Your task to perform on an android device: turn on showing notifications on the lock screen Image 0: 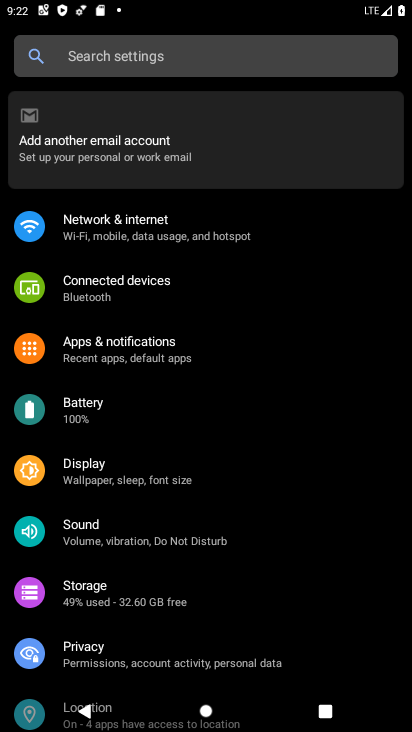
Step 0: click (124, 353)
Your task to perform on an android device: turn on showing notifications on the lock screen Image 1: 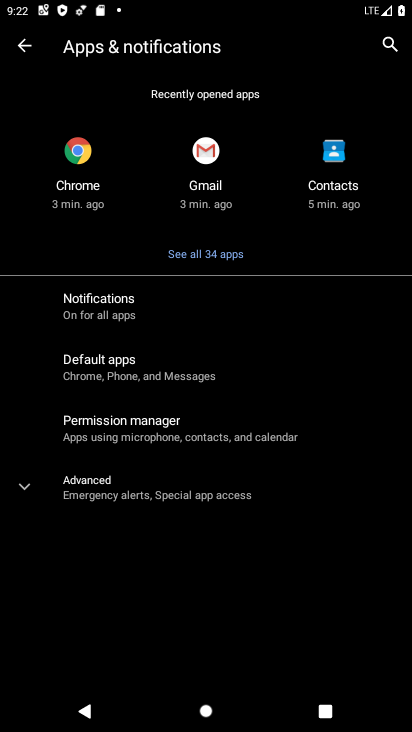
Step 1: click (100, 310)
Your task to perform on an android device: turn on showing notifications on the lock screen Image 2: 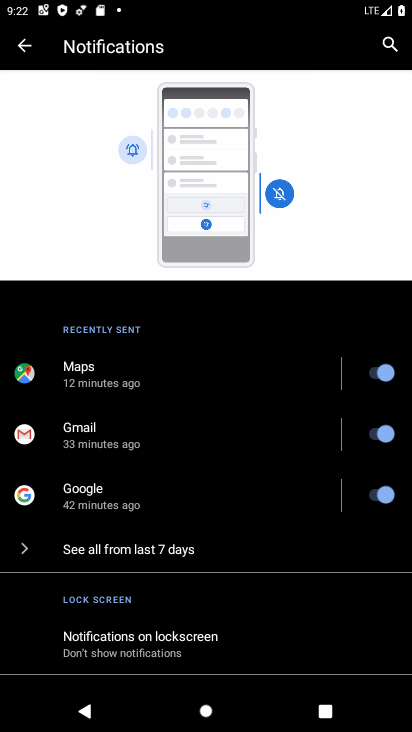
Step 2: click (136, 645)
Your task to perform on an android device: turn on showing notifications on the lock screen Image 3: 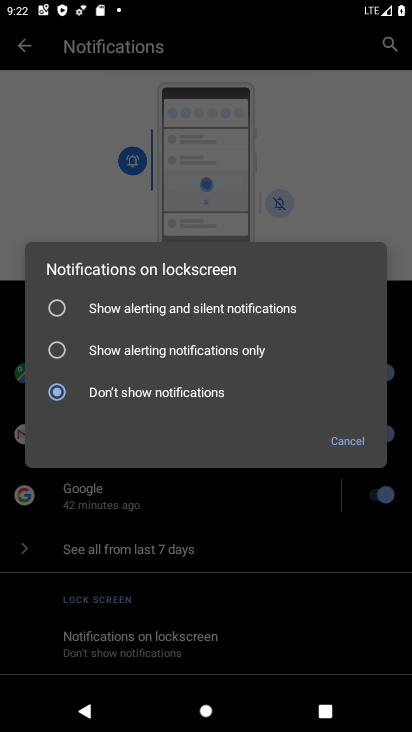
Step 3: click (55, 310)
Your task to perform on an android device: turn on showing notifications on the lock screen Image 4: 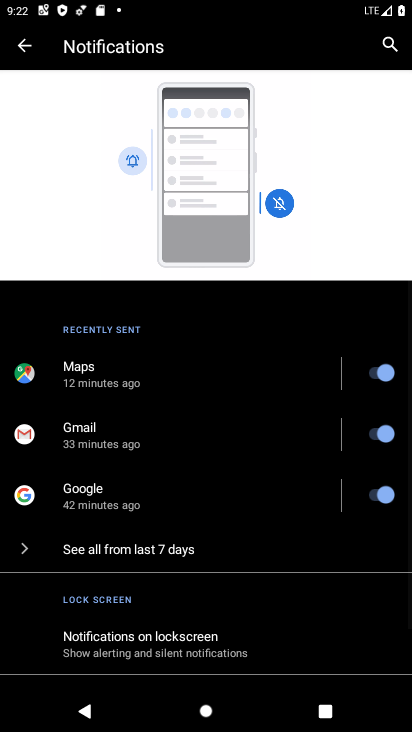
Step 4: task complete